Your task to perform on an android device: change timer sound Image 0: 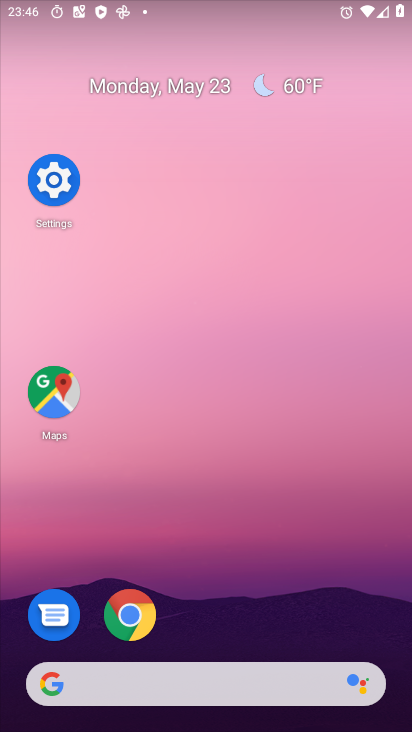
Step 0: drag from (224, 563) to (261, 60)
Your task to perform on an android device: change timer sound Image 1: 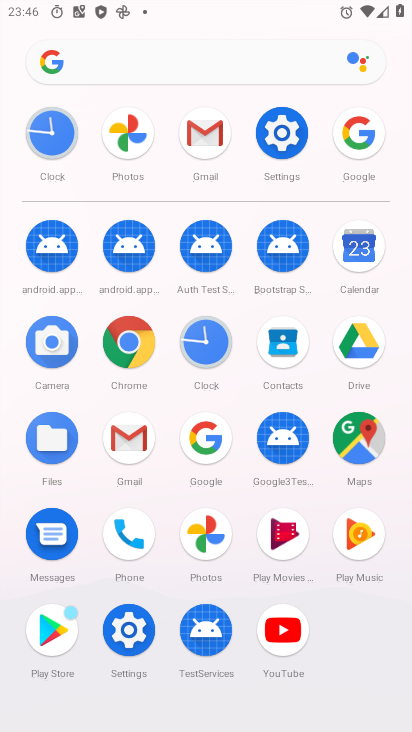
Step 1: click (210, 348)
Your task to perform on an android device: change timer sound Image 2: 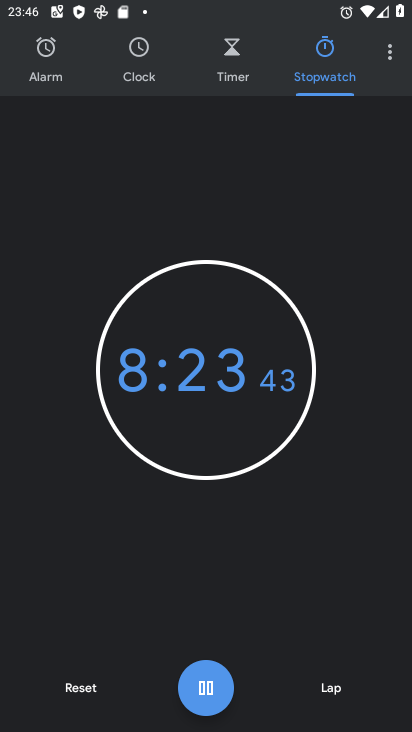
Step 2: click (390, 53)
Your task to perform on an android device: change timer sound Image 3: 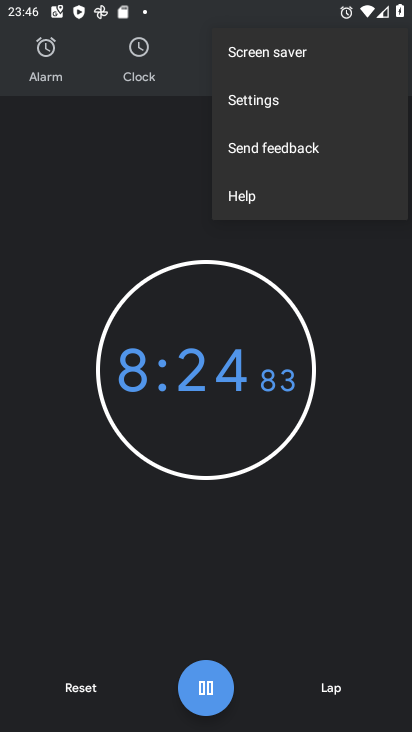
Step 3: click (286, 101)
Your task to perform on an android device: change timer sound Image 4: 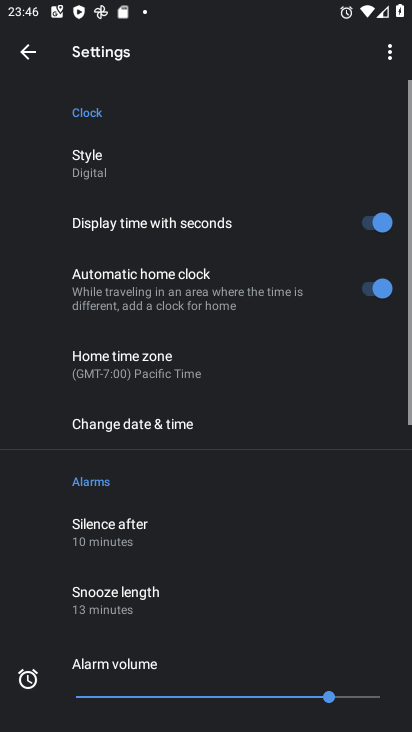
Step 4: drag from (163, 557) to (249, 75)
Your task to perform on an android device: change timer sound Image 5: 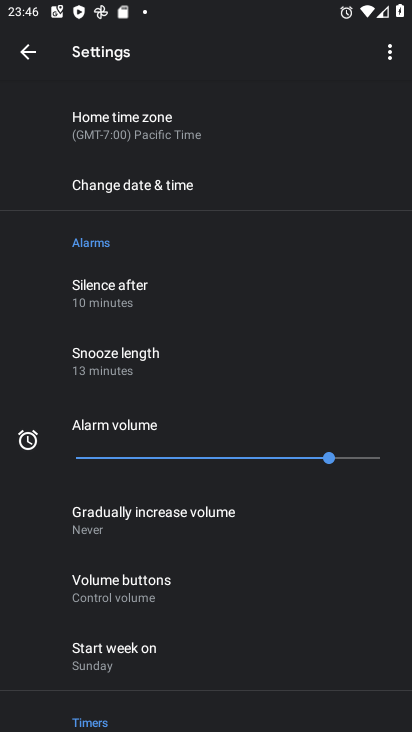
Step 5: drag from (128, 682) to (211, 219)
Your task to perform on an android device: change timer sound Image 6: 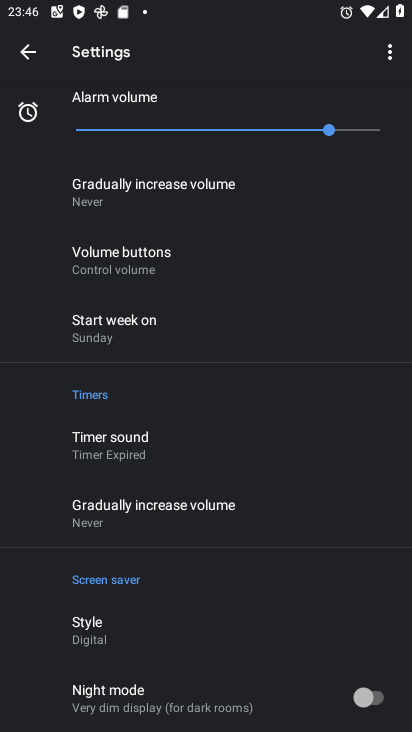
Step 6: click (132, 448)
Your task to perform on an android device: change timer sound Image 7: 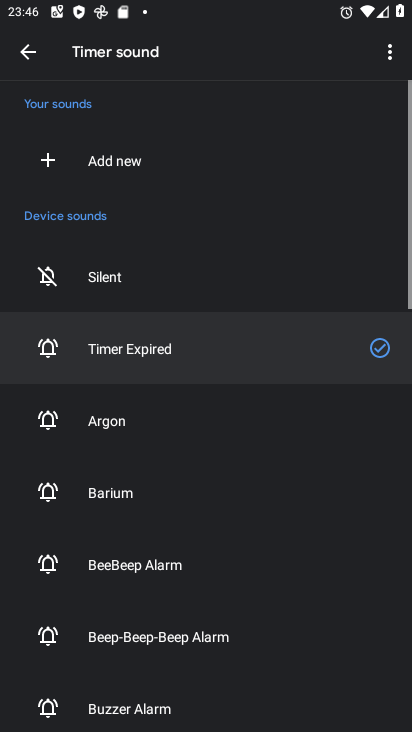
Step 7: click (118, 434)
Your task to perform on an android device: change timer sound Image 8: 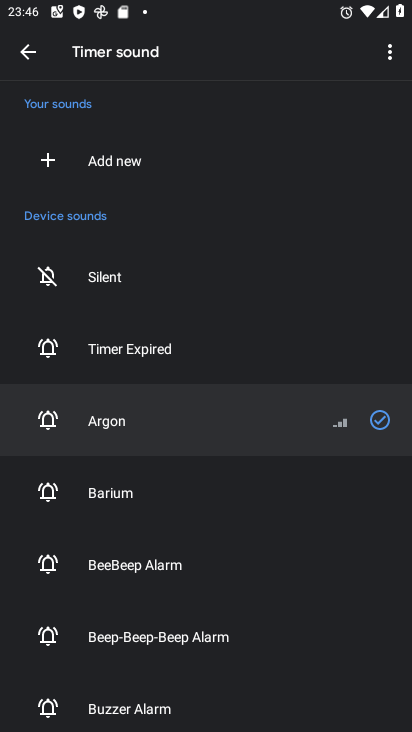
Step 8: task complete